Your task to perform on an android device: check data usage Image 0: 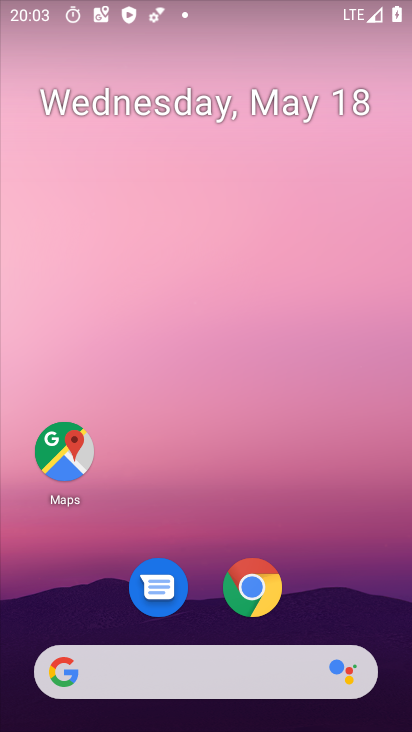
Step 0: drag from (208, 10) to (217, 631)
Your task to perform on an android device: check data usage Image 1: 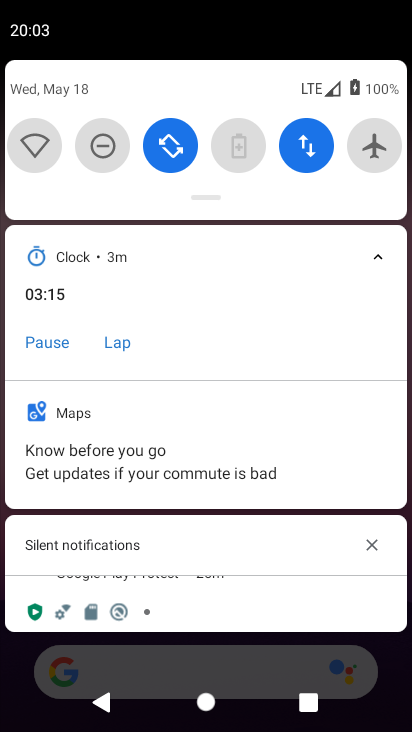
Step 1: click (297, 154)
Your task to perform on an android device: check data usage Image 2: 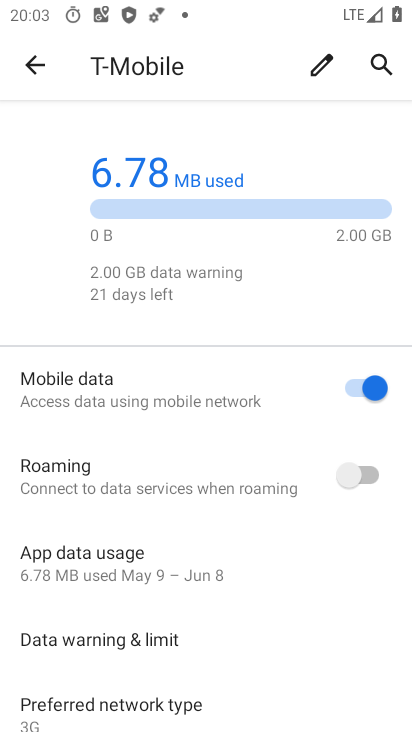
Step 2: task complete